Your task to perform on an android device: refresh tabs in the chrome app Image 0: 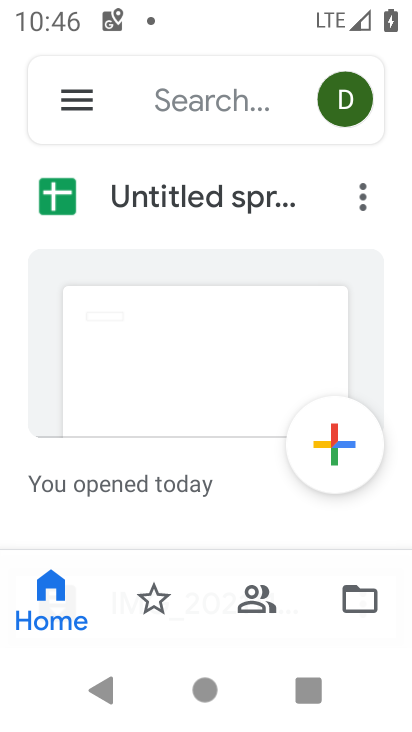
Step 0: press home button
Your task to perform on an android device: refresh tabs in the chrome app Image 1: 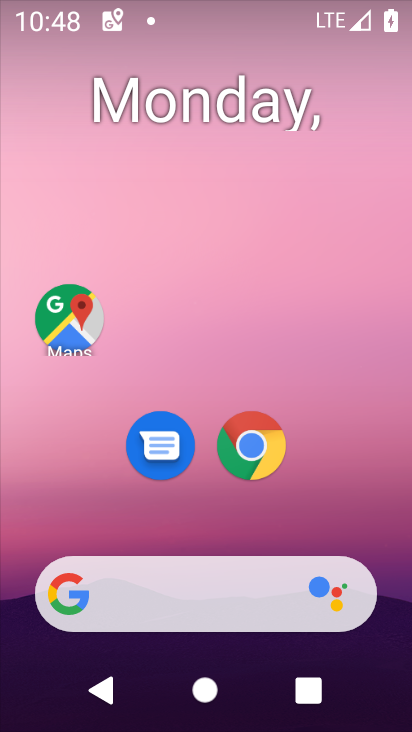
Step 1: click (263, 439)
Your task to perform on an android device: refresh tabs in the chrome app Image 2: 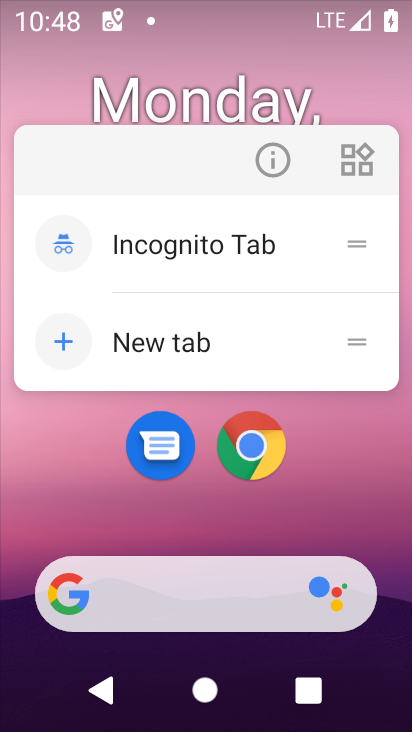
Step 2: click (259, 438)
Your task to perform on an android device: refresh tabs in the chrome app Image 3: 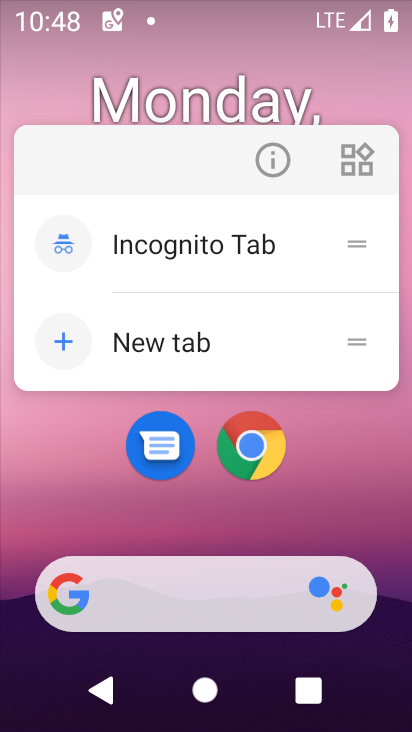
Step 3: click (259, 438)
Your task to perform on an android device: refresh tabs in the chrome app Image 4: 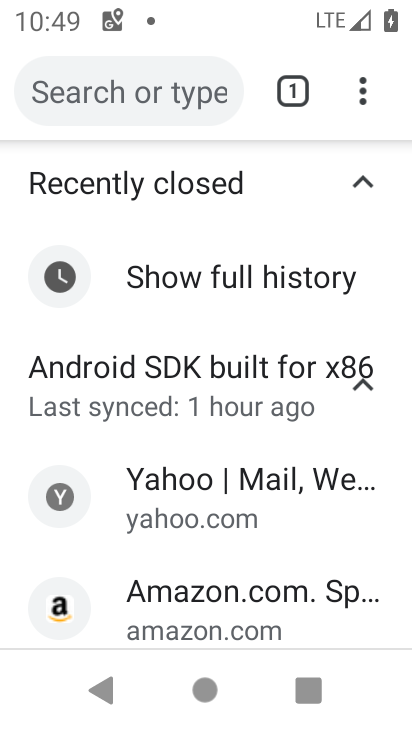
Step 4: task complete